Your task to perform on an android device: Open my contact list Image 0: 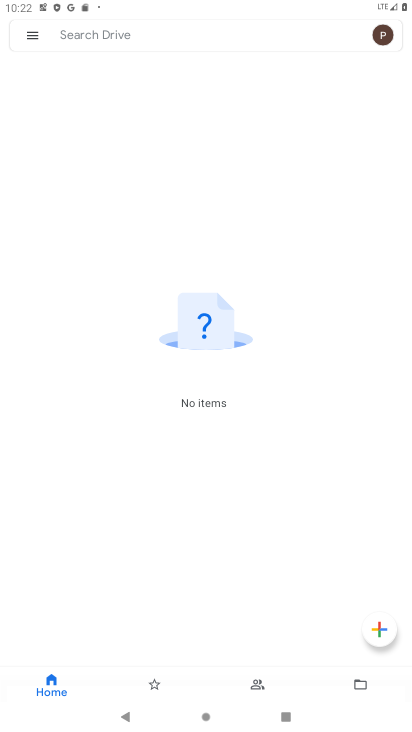
Step 0: press home button
Your task to perform on an android device: Open my contact list Image 1: 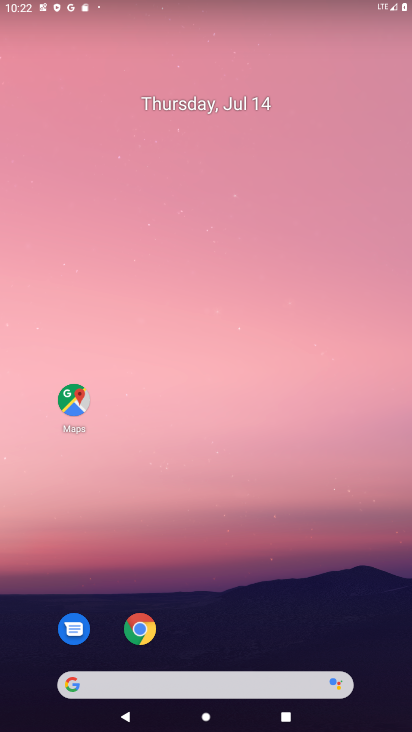
Step 1: drag from (18, 606) to (234, 76)
Your task to perform on an android device: Open my contact list Image 2: 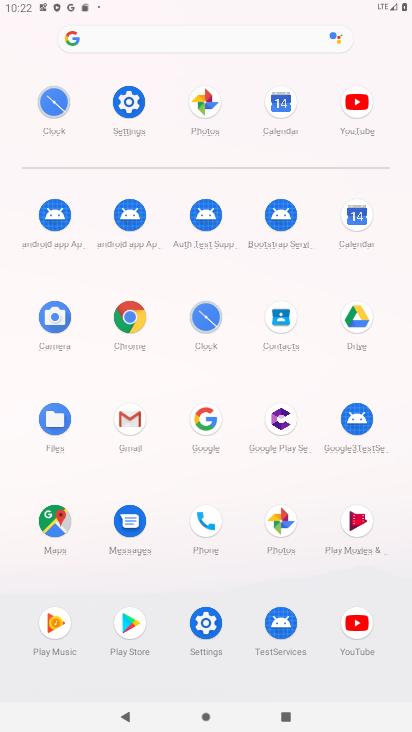
Step 2: click (198, 519)
Your task to perform on an android device: Open my contact list Image 3: 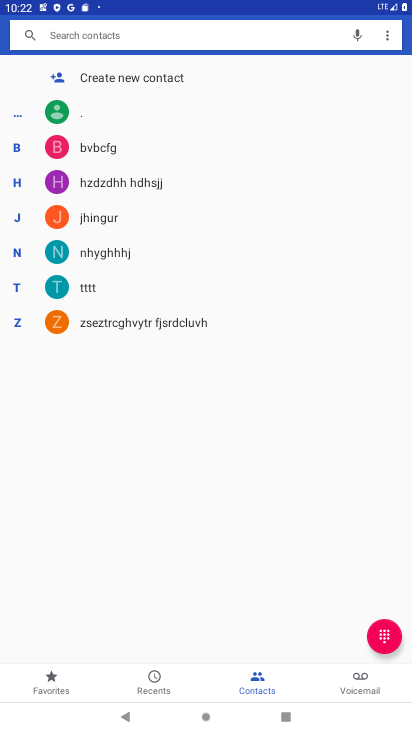
Step 3: task complete